Your task to perform on an android device: Open the calendar app, open the side menu, and click the "Day" option Image 0: 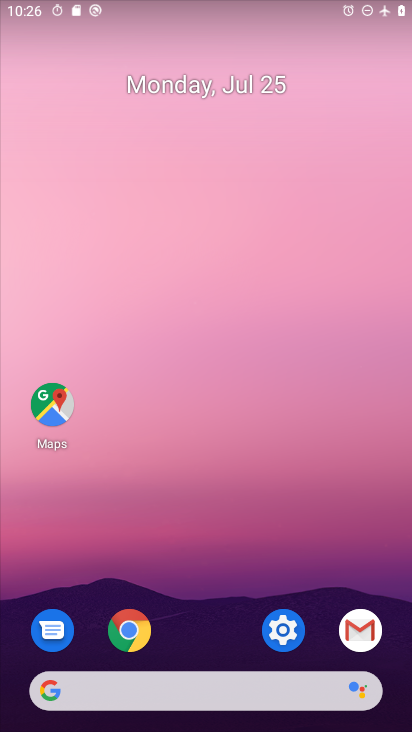
Step 0: drag from (294, 724) to (196, 334)
Your task to perform on an android device: Open the calendar app, open the side menu, and click the "Day" option Image 1: 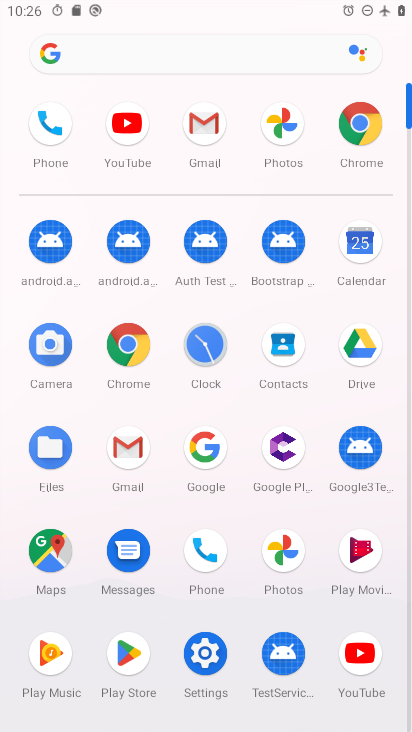
Step 1: click (342, 241)
Your task to perform on an android device: Open the calendar app, open the side menu, and click the "Day" option Image 2: 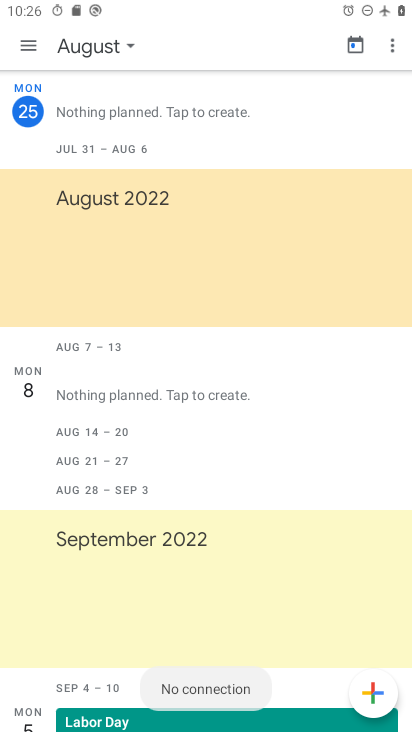
Step 2: click (33, 42)
Your task to perform on an android device: Open the calendar app, open the side menu, and click the "Day" option Image 3: 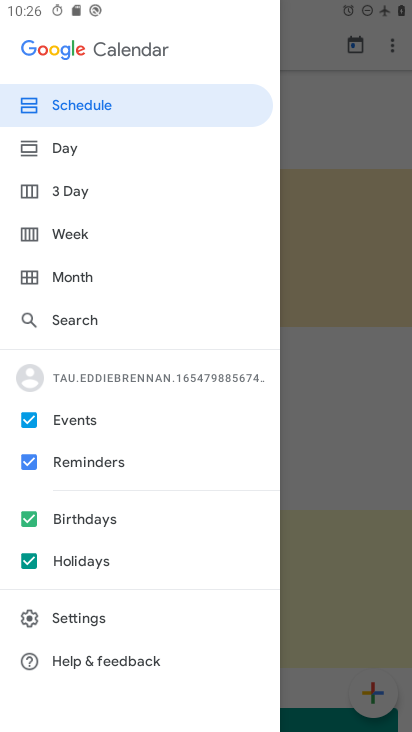
Step 3: click (79, 155)
Your task to perform on an android device: Open the calendar app, open the side menu, and click the "Day" option Image 4: 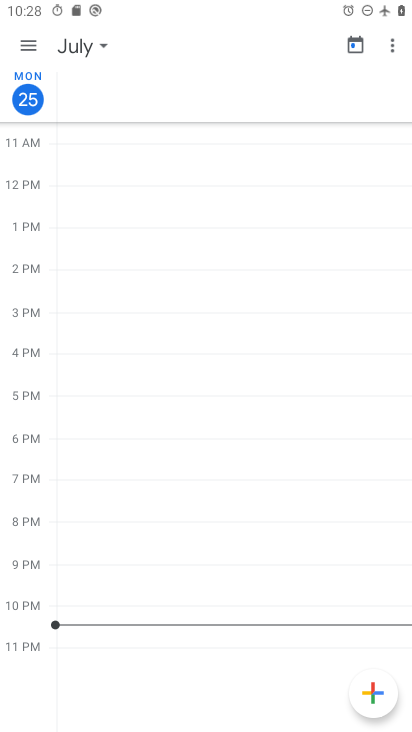
Step 4: task complete